Your task to perform on an android device: Turn on the flashlight Image 0: 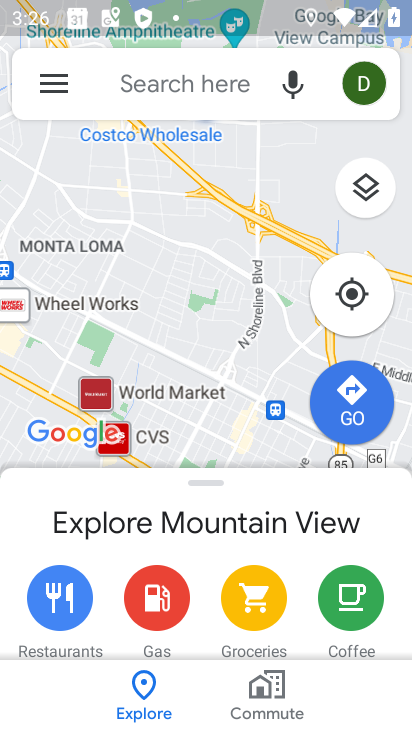
Step 0: press home button
Your task to perform on an android device: Turn on the flashlight Image 1: 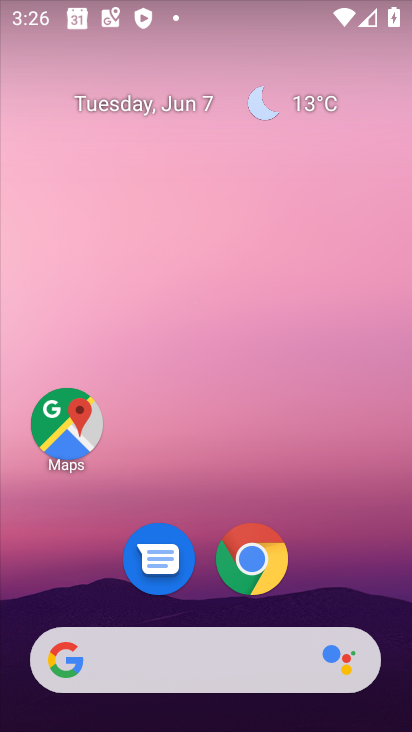
Step 1: drag from (330, 591) to (270, 241)
Your task to perform on an android device: Turn on the flashlight Image 2: 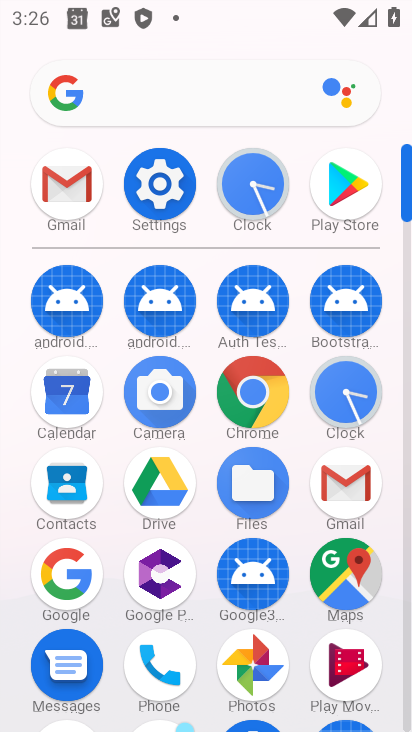
Step 2: click (160, 185)
Your task to perform on an android device: Turn on the flashlight Image 3: 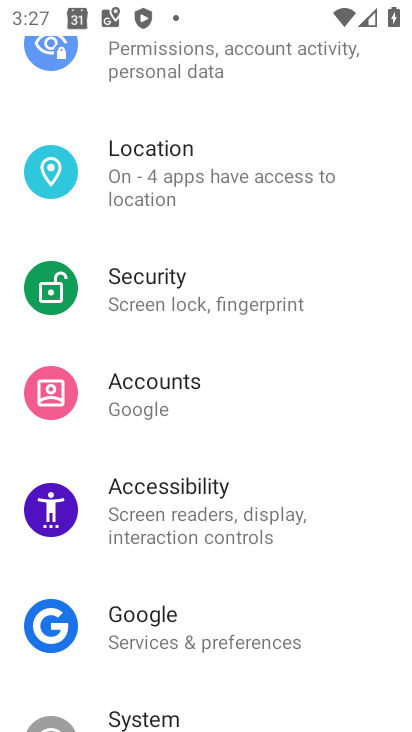
Step 3: drag from (213, 500) to (249, 436)
Your task to perform on an android device: Turn on the flashlight Image 4: 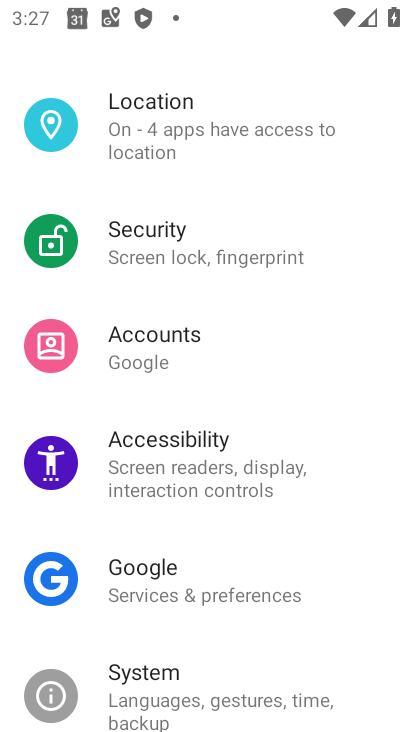
Step 4: drag from (199, 662) to (285, 486)
Your task to perform on an android device: Turn on the flashlight Image 5: 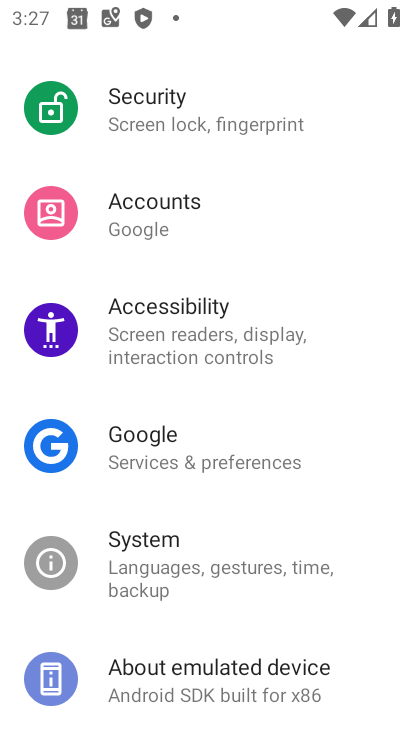
Step 5: drag from (207, 387) to (218, 582)
Your task to perform on an android device: Turn on the flashlight Image 6: 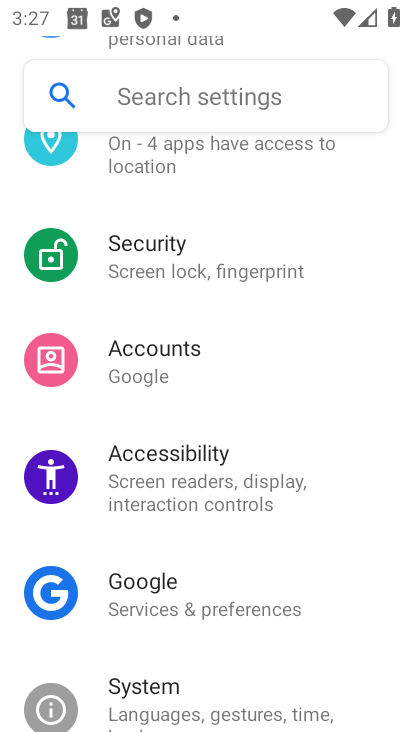
Step 6: drag from (209, 378) to (228, 436)
Your task to perform on an android device: Turn on the flashlight Image 7: 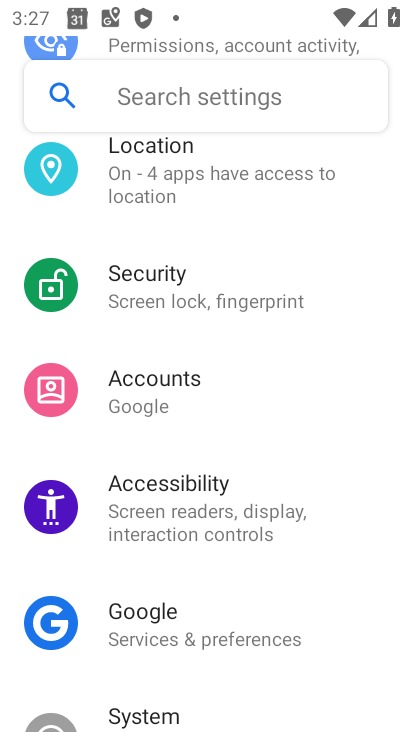
Step 7: click (200, 500)
Your task to perform on an android device: Turn on the flashlight Image 8: 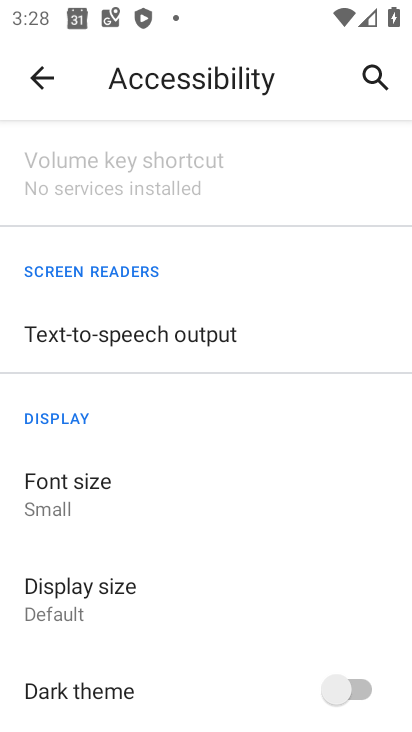
Step 8: drag from (147, 596) to (223, 371)
Your task to perform on an android device: Turn on the flashlight Image 9: 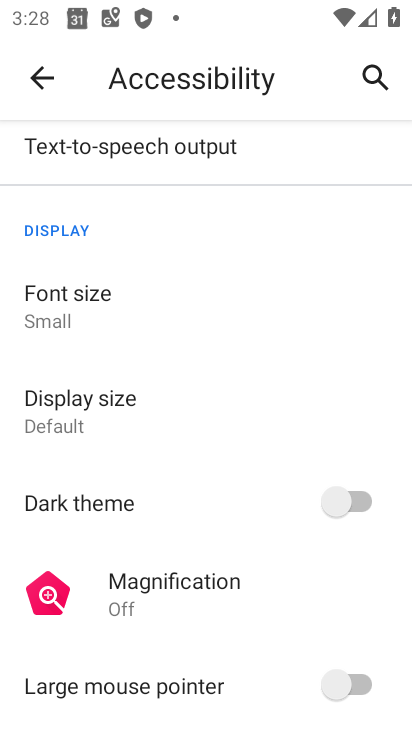
Step 9: press back button
Your task to perform on an android device: Turn on the flashlight Image 10: 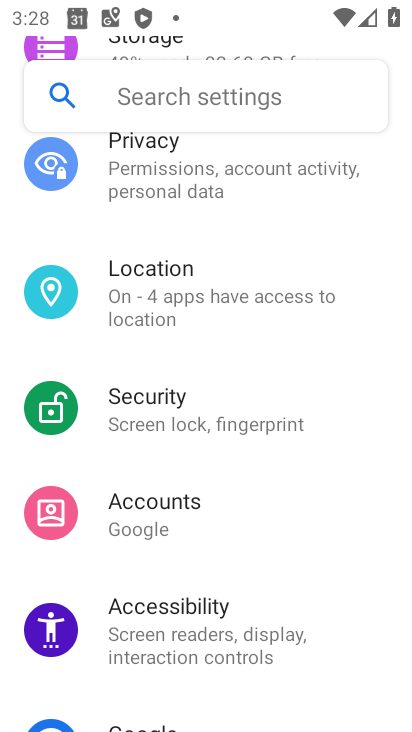
Step 10: drag from (247, 371) to (235, 545)
Your task to perform on an android device: Turn on the flashlight Image 11: 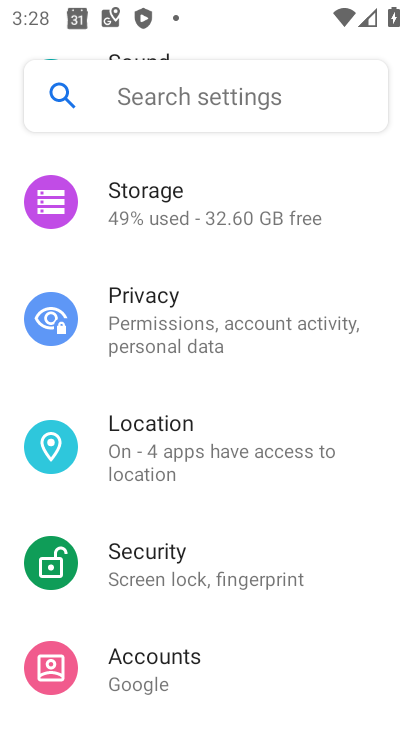
Step 11: click (218, 484)
Your task to perform on an android device: Turn on the flashlight Image 12: 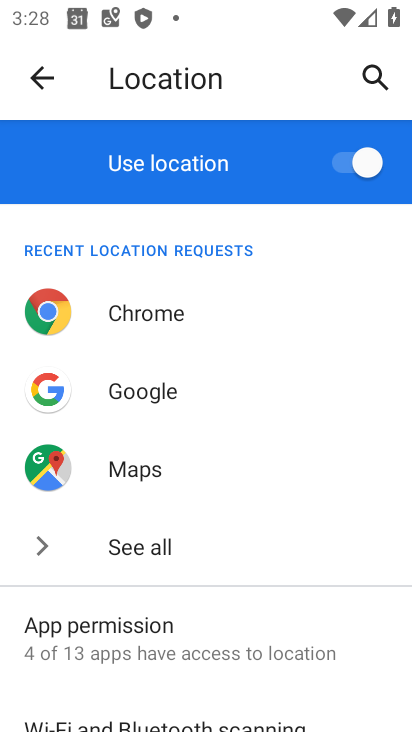
Step 12: press back button
Your task to perform on an android device: Turn on the flashlight Image 13: 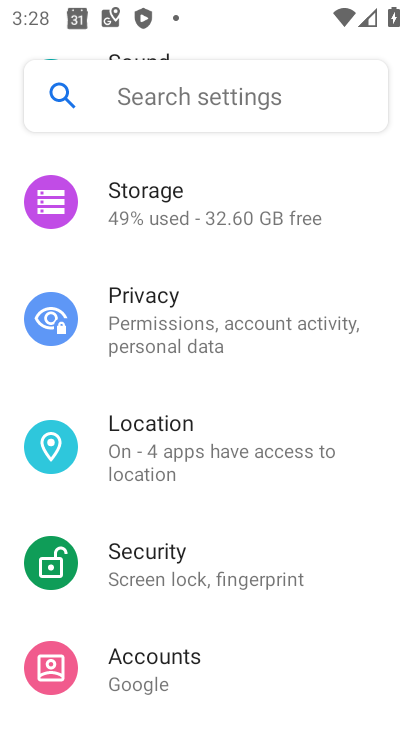
Step 13: drag from (264, 258) to (256, 431)
Your task to perform on an android device: Turn on the flashlight Image 14: 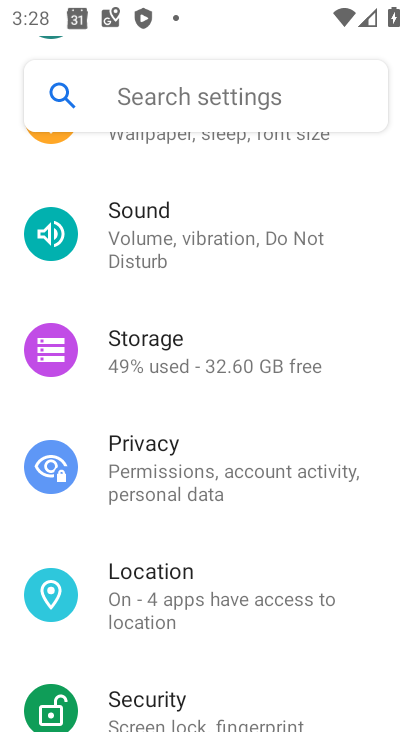
Step 14: drag from (227, 334) to (245, 434)
Your task to perform on an android device: Turn on the flashlight Image 15: 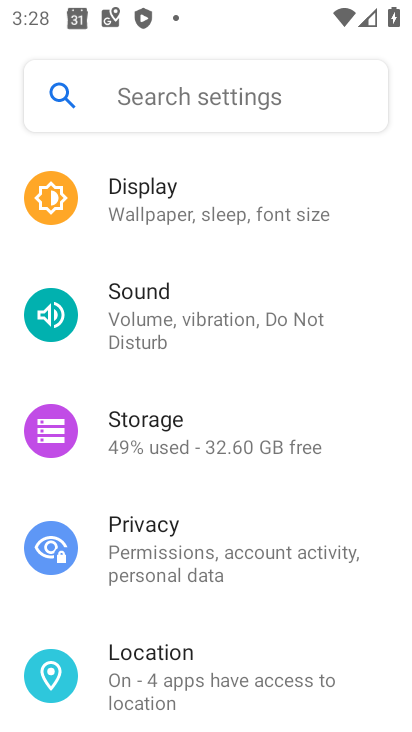
Step 15: drag from (220, 270) to (213, 395)
Your task to perform on an android device: Turn on the flashlight Image 16: 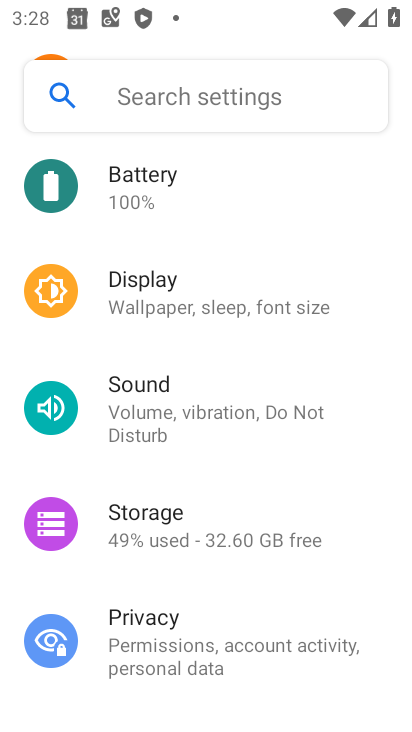
Step 16: click (210, 293)
Your task to perform on an android device: Turn on the flashlight Image 17: 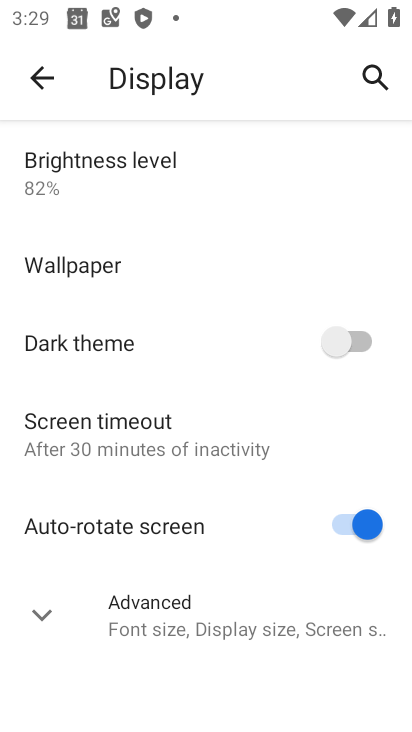
Step 17: drag from (149, 361) to (166, 441)
Your task to perform on an android device: Turn on the flashlight Image 18: 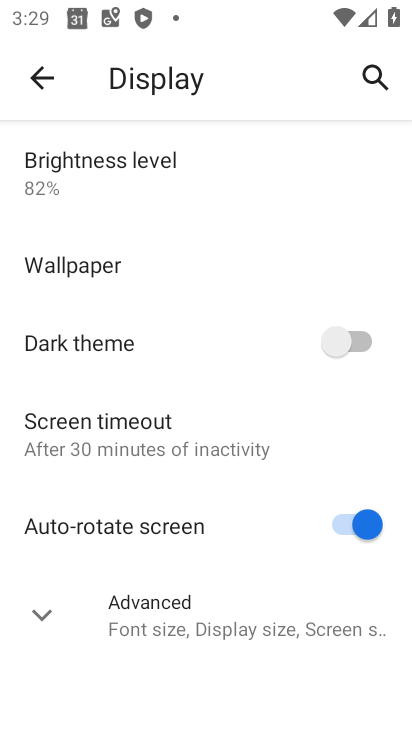
Step 18: drag from (148, 346) to (151, 447)
Your task to perform on an android device: Turn on the flashlight Image 19: 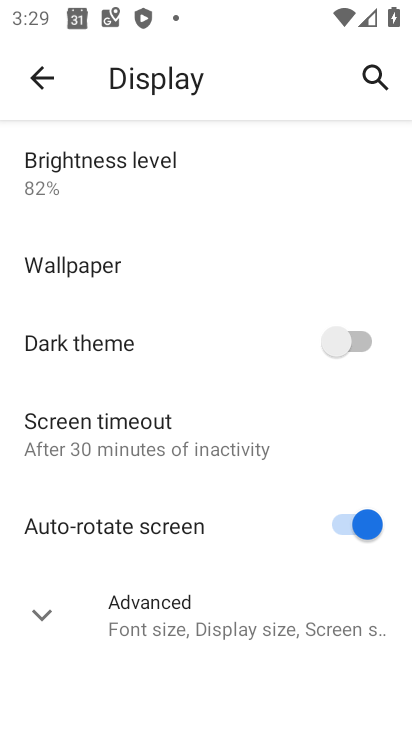
Step 19: click (269, 638)
Your task to perform on an android device: Turn on the flashlight Image 20: 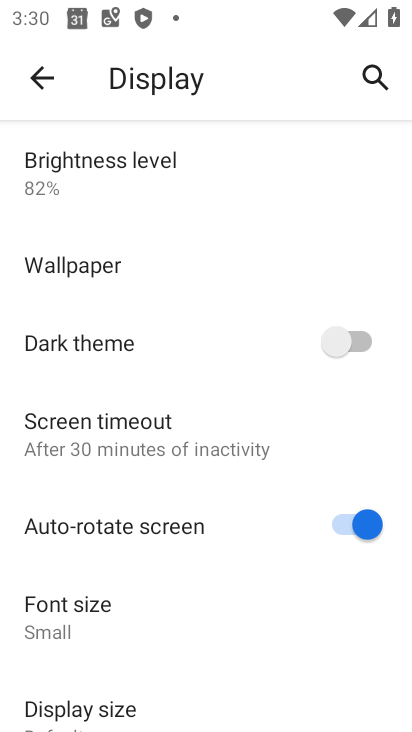
Step 20: task complete